Your task to perform on an android device: change notifications settings Image 0: 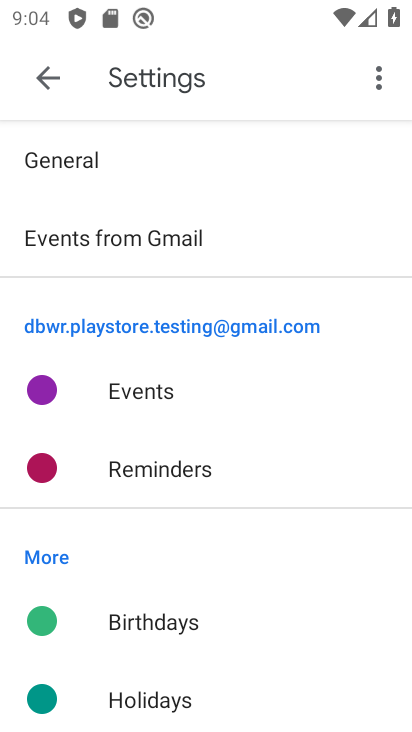
Step 0: press home button
Your task to perform on an android device: change notifications settings Image 1: 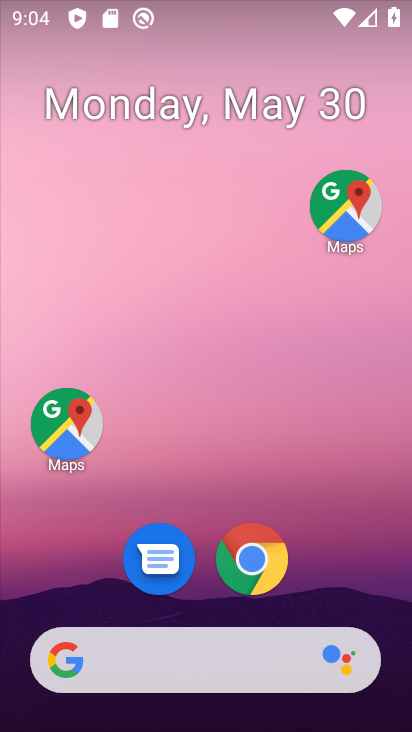
Step 1: drag from (331, 493) to (265, 2)
Your task to perform on an android device: change notifications settings Image 2: 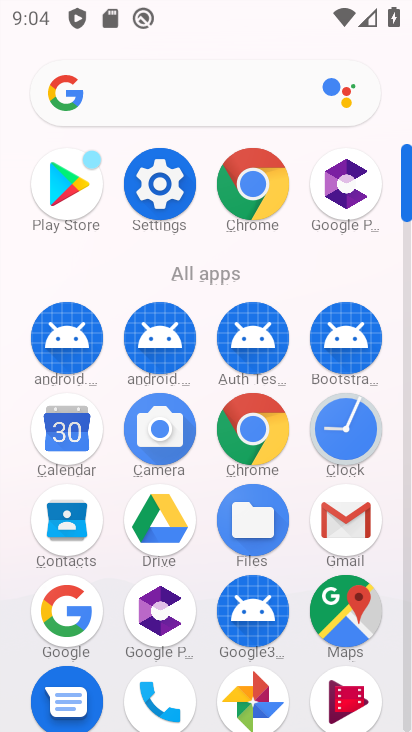
Step 2: click (163, 178)
Your task to perform on an android device: change notifications settings Image 3: 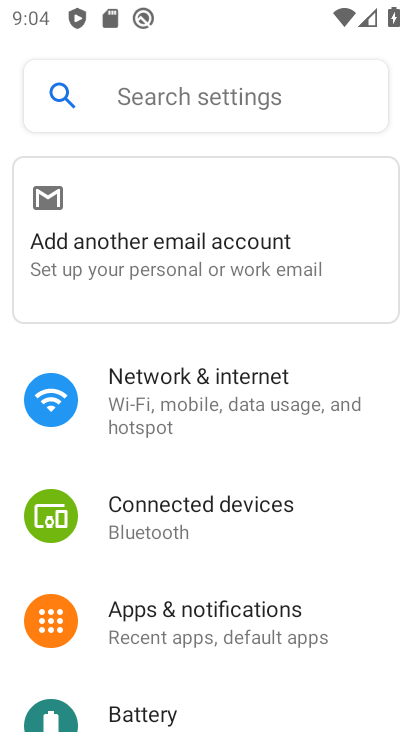
Step 3: click (222, 613)
Your task to perform on an android device: change notifications settings Image 4: 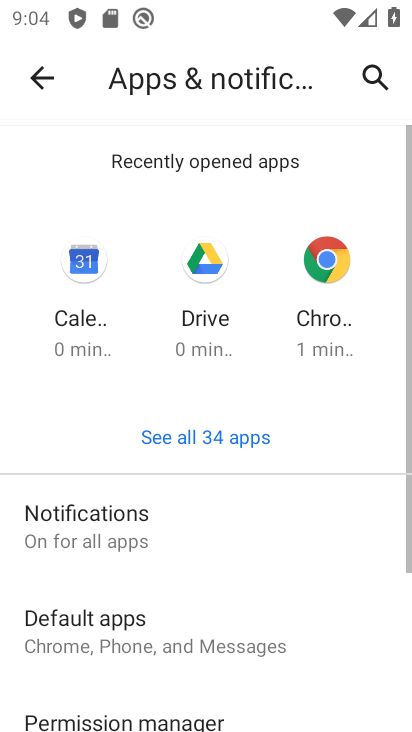
Step 4: click (238, 544)
Your task to perform on an android device: change notifications settings Image 5: 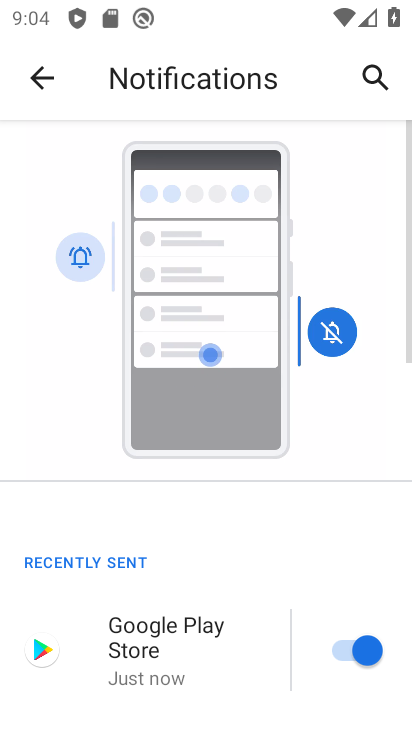
Step 5: drag from (265, 573) to (321, 64)
Your task to perform on an android device: change notifications settings Image 6: 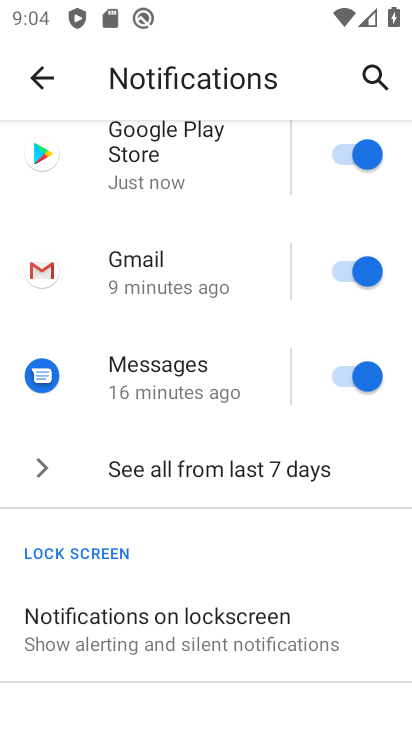
Step 6: drag from (217, 599) to (286, 176)
Your task to perform on an android device: change notifications settings Image 7: 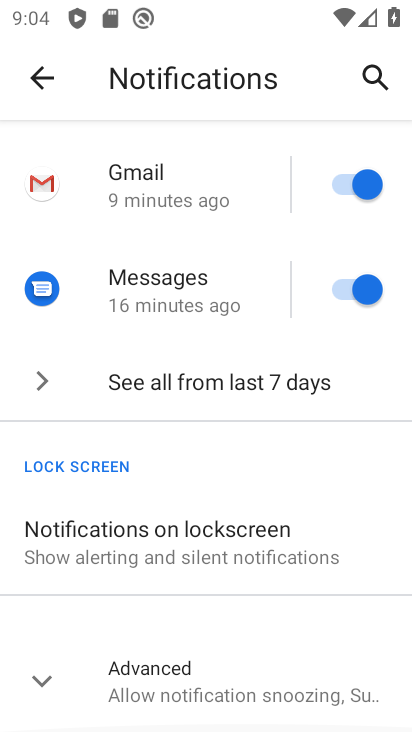
Step 7: click (173, 703)
Your task to perform on an android device: change notifications settings Image 8: 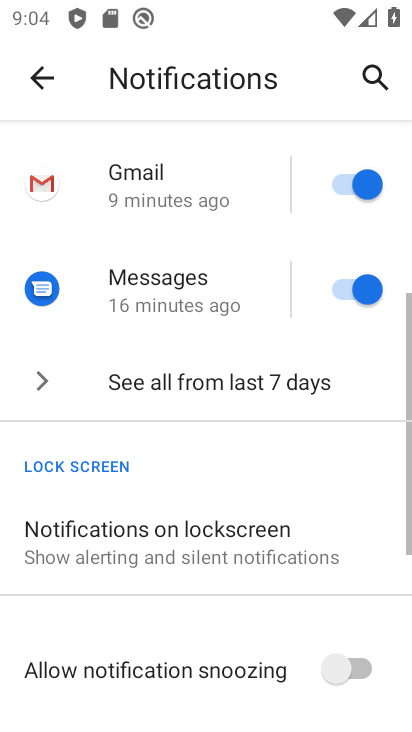
Step 8: drag from (181, 690) to (238, 382)
Your task to perform on an android device: change notifications settings Image 9: 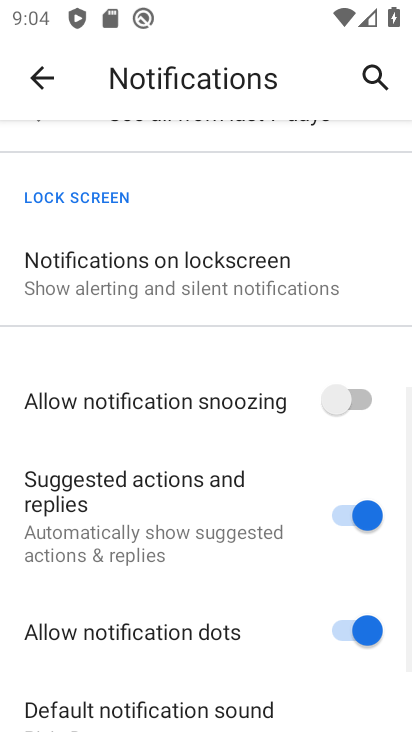
Step 9: click (340, 409)
Your task to perform on an android device: change notifications settings Image 10: 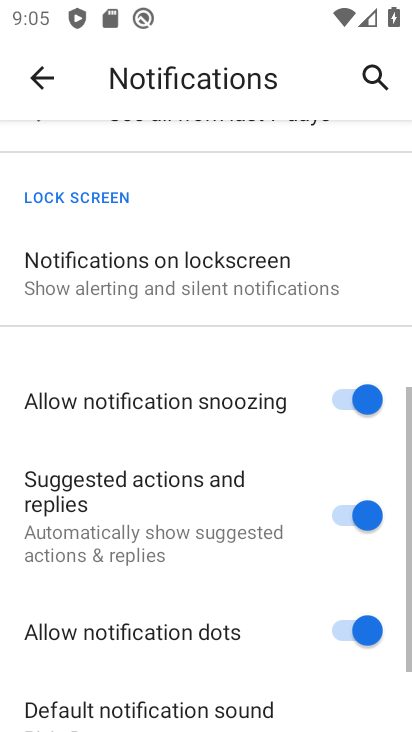
Step 10: task complete